Your task to perform on an android device: turn off location history Image 0: 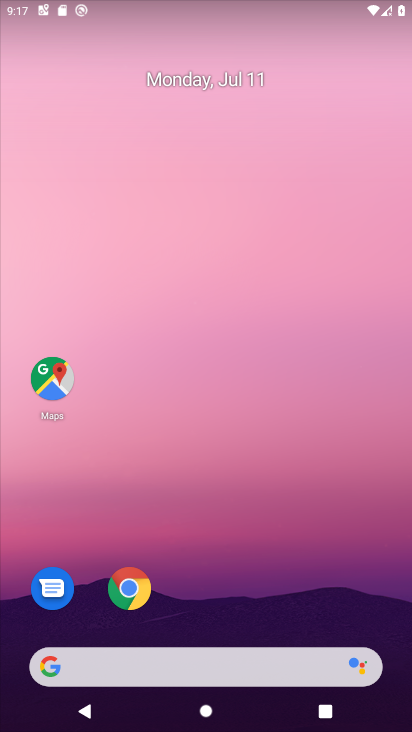
Step 0: drag from (273, 648) to (242, 320)
Your task to perform on an android device: turn off location history Image 1: 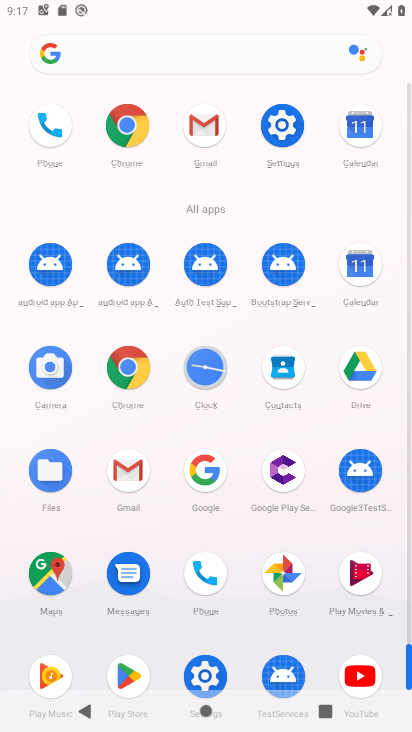
Step 1: click (281, 123)
Your task to perform on an android device: turn off location history Image 2: 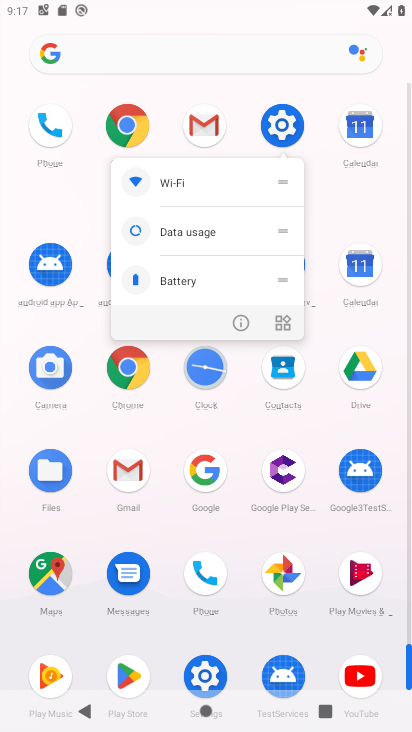
Step 2: click (275, 132)
Your task to perform on an android device: turn off location history Image 3: 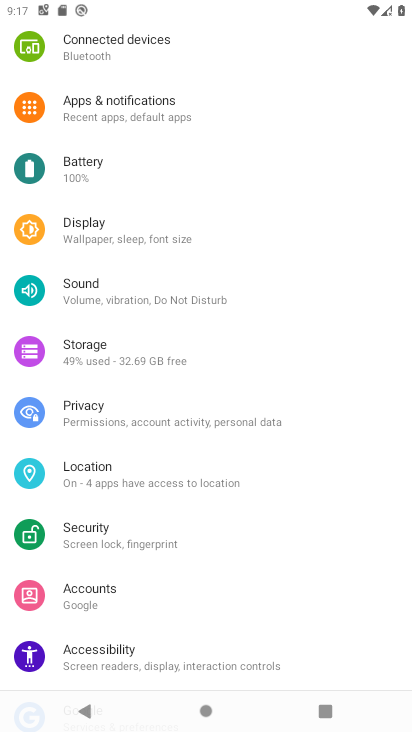
Step 3: click (140, 464)
Your task to perform on an android device: turn off location history Image 4: 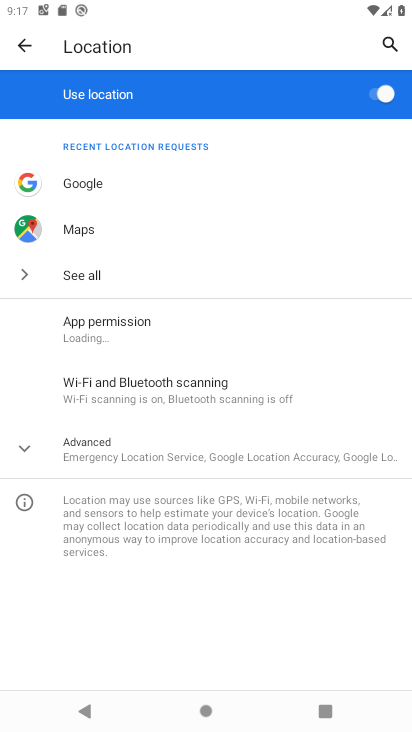
Step 4: click (199, 456)
Your task to perform on an android device: turn off location history Image 5: 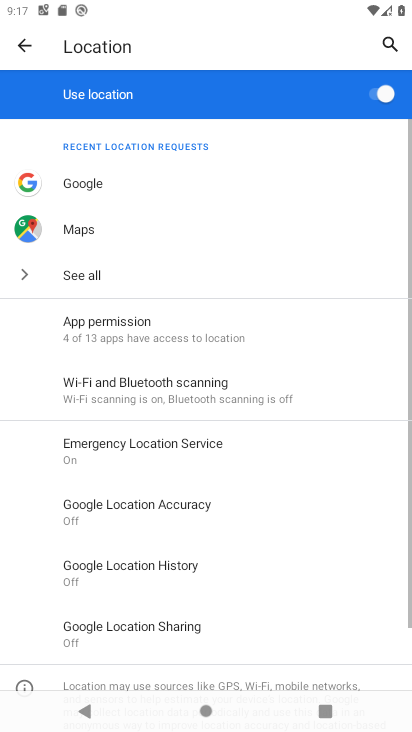
Step 5: click (171, 566)
Your task to perform on an android device: turn off location history Image 6: 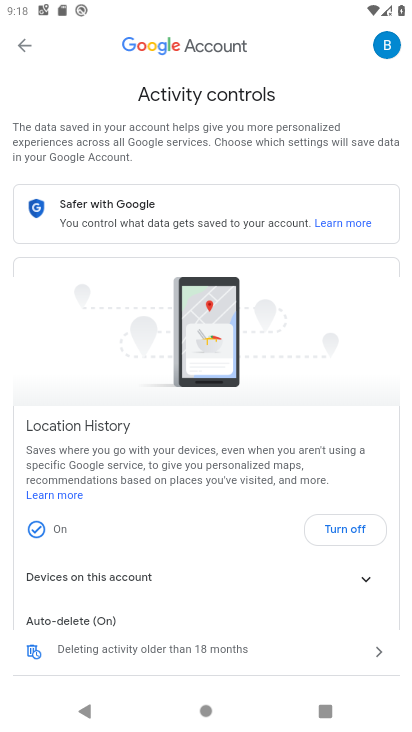
Step 6: task complete